Your task to perform on an android device: open chrome privacy settings Image 0: 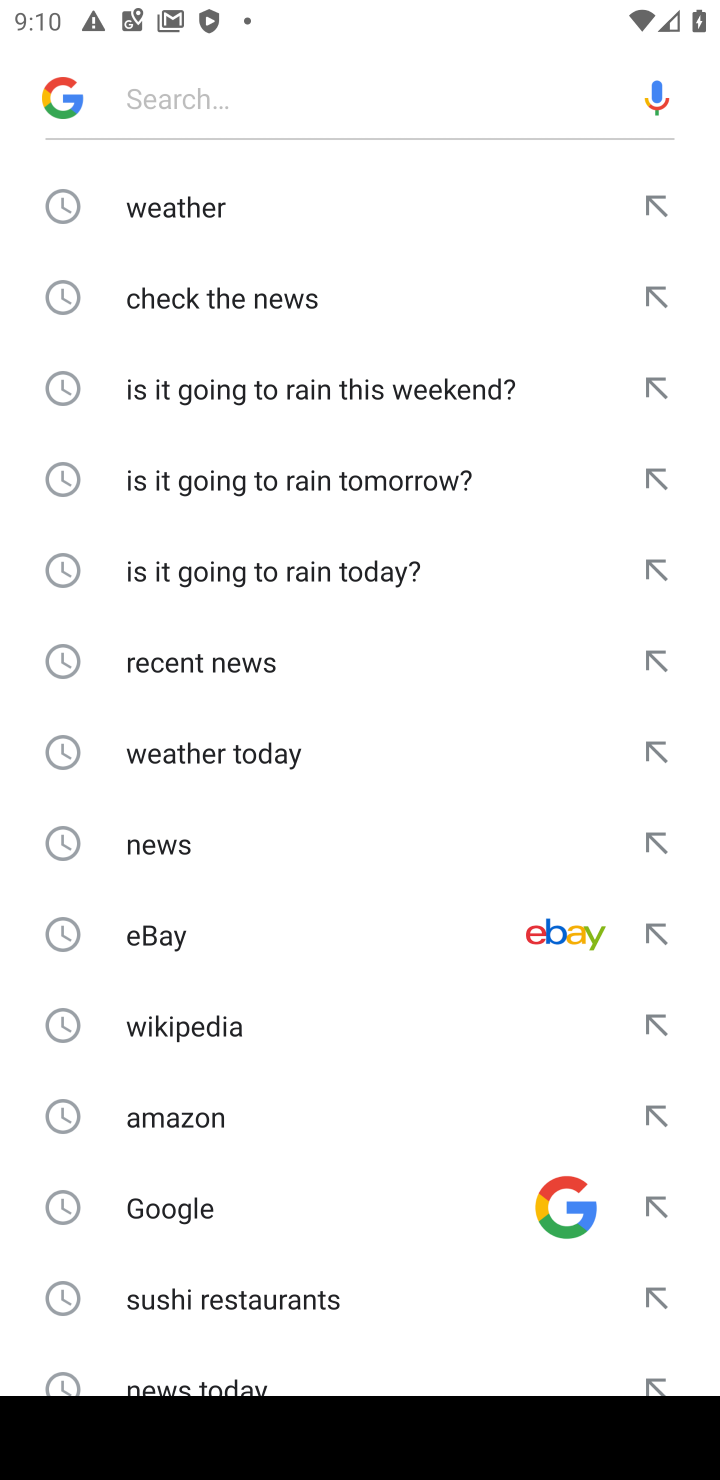
Step 0: press home button
Your task to perform on an android device: open chrome privacy settings Image 1: 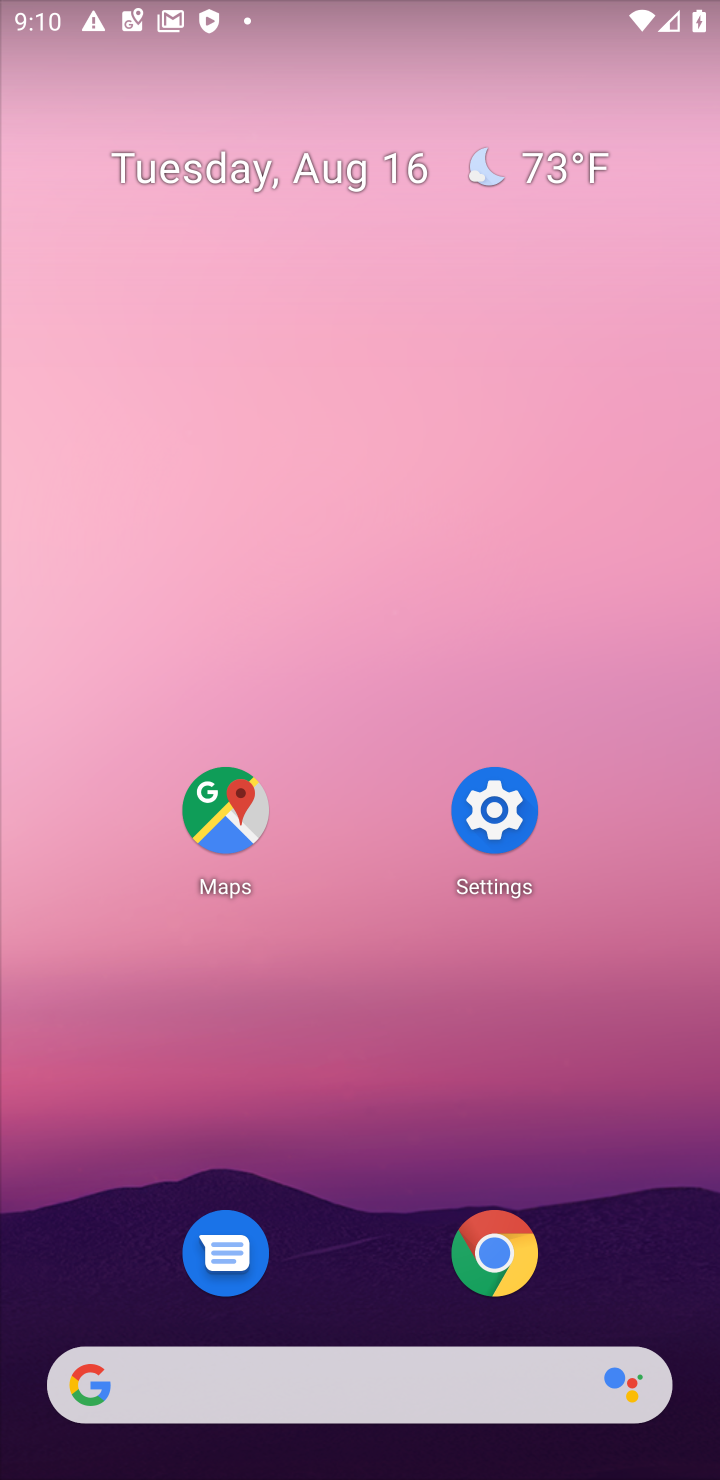
Step 1: click (496, 805)
Your task to perform on an android device: open chrome privacy settings Image 2: 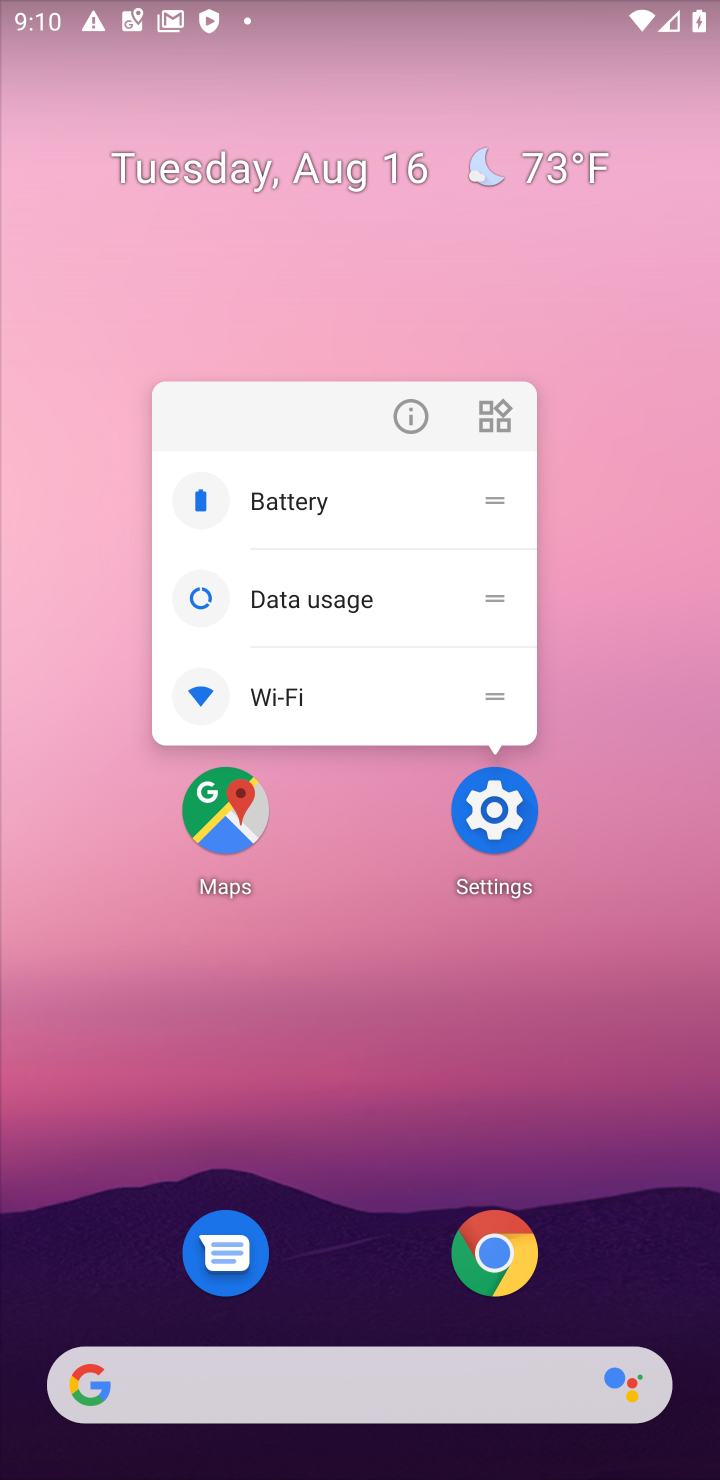
Step 2: click (508, 1247)
Your task to perform on an android device: open chrome privacy settings Image 3: 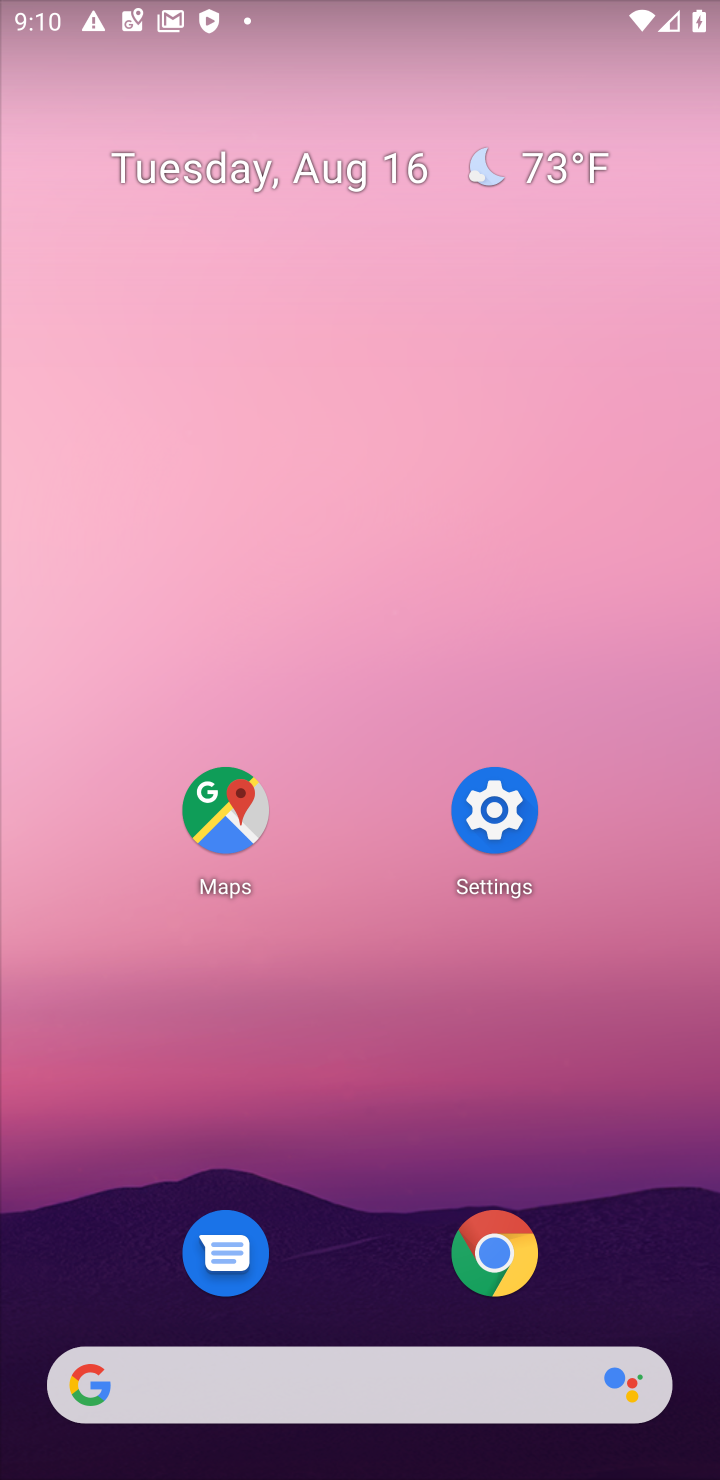
Step 3: click (508, 1251)
Your task to perform on an android device: open chrome privacy settings Image 4: 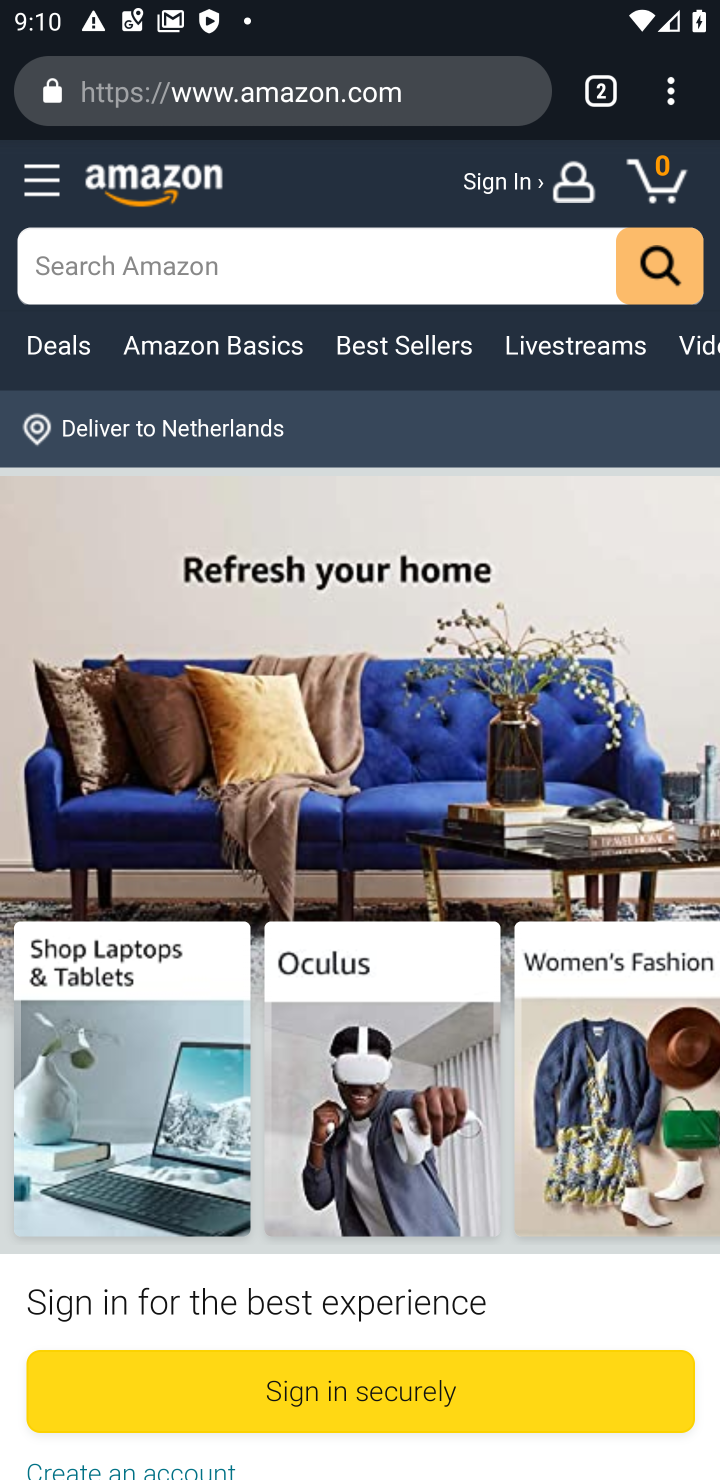
Step 4: drag from (671, 91) to (419, 1116)
Your task to perform on an android device: open chrome privacy settings Image 5: 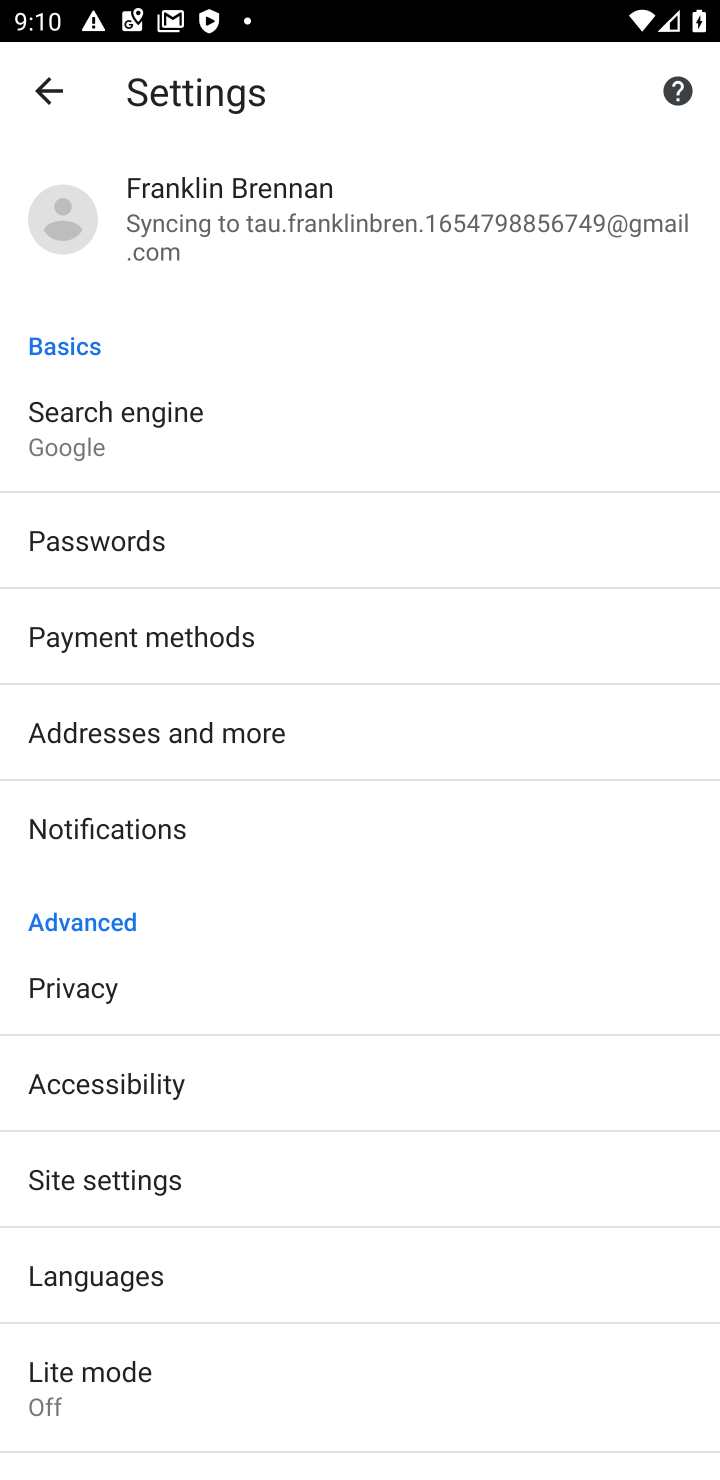
Step 5: click (82, 979)
Your task to perform on an android device: open chrome privacy settings Image 6: 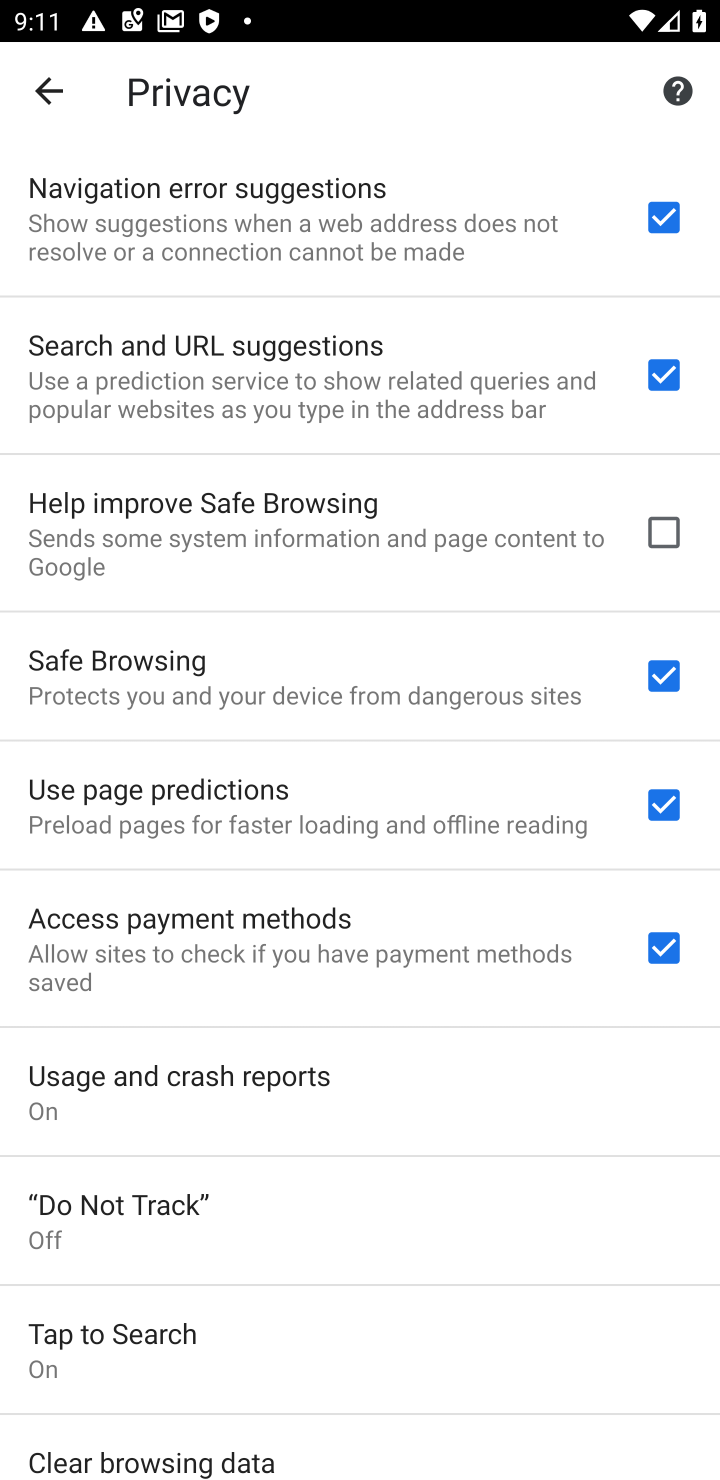
Step 6: task complete